Your task to perform on an android device: remove spam from my inbox in the gmail app Image 0: 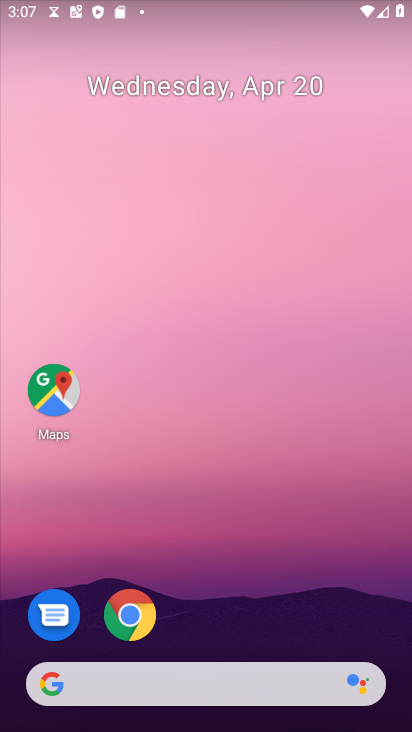
Step 0: drag from (211, 606) to (262, 31)
Your task to perform on an android device: remove spam from my inbox in the gmail app Image 1: 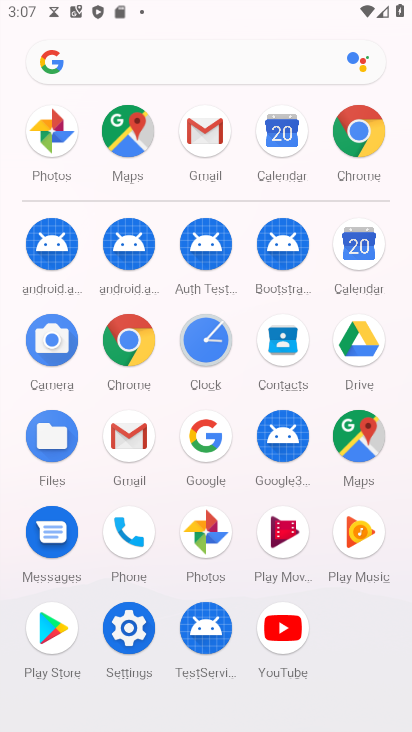
Step 1: click (137, 429)
Your task to perform on an android device: remove spam from my inbox in the gmail app Image 2: 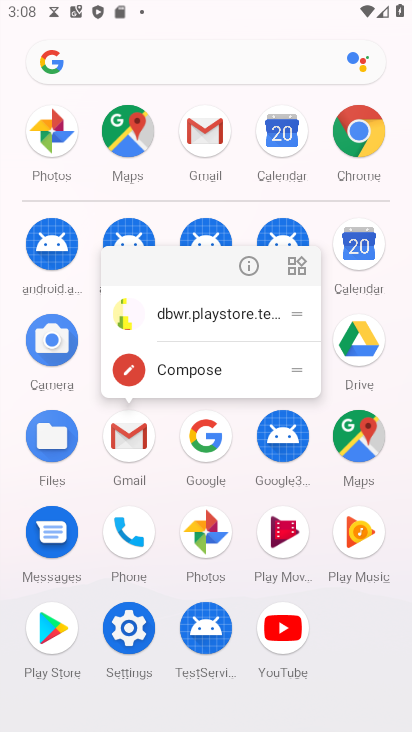
Step 2: click (245, 265)
Your task to perform on an android device: remove spam from my inbox in the gmail app Image 3: 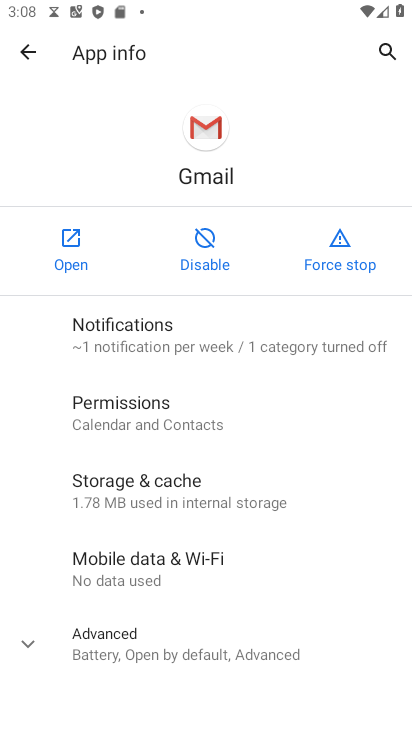
Step 3: click (64, 256)
Your task to perform on an android device: remove spam from my inbox in the gmail app Image 4: 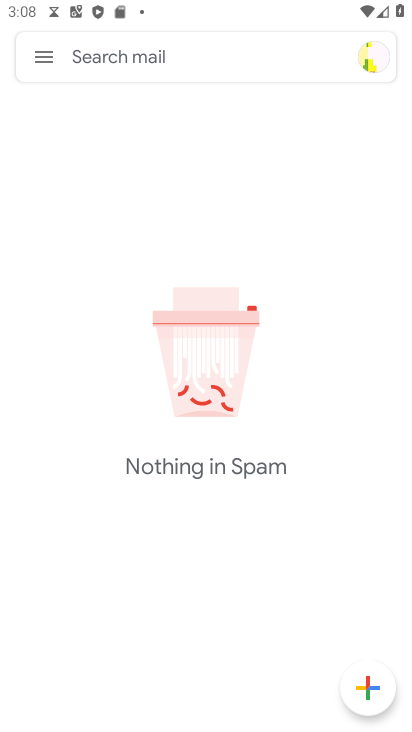
Step 4: click (39, 50)
Your task to perform on an android device: remove spam from my inbox in the gmail app Image 5: 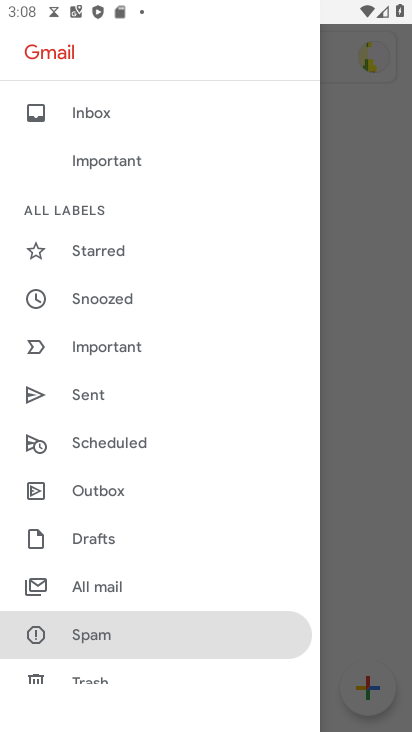
Step 5: click (100, 627)
Your task to perform on an android device: remove spam from my inbox in the gmail app Image 6: 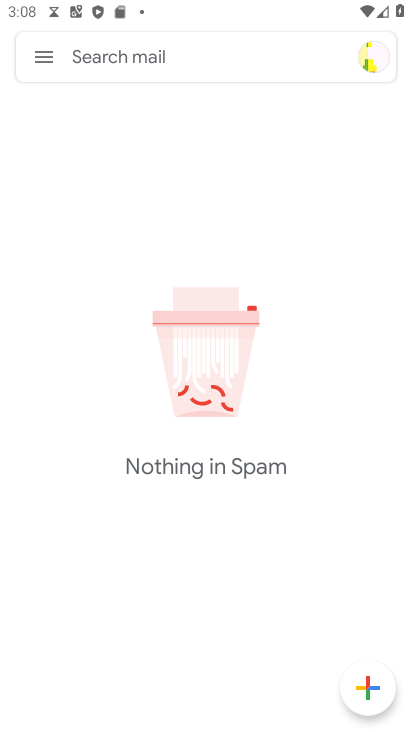
Step 6: task complete